Your task to perform on an android device: Go to network settings Image 0: 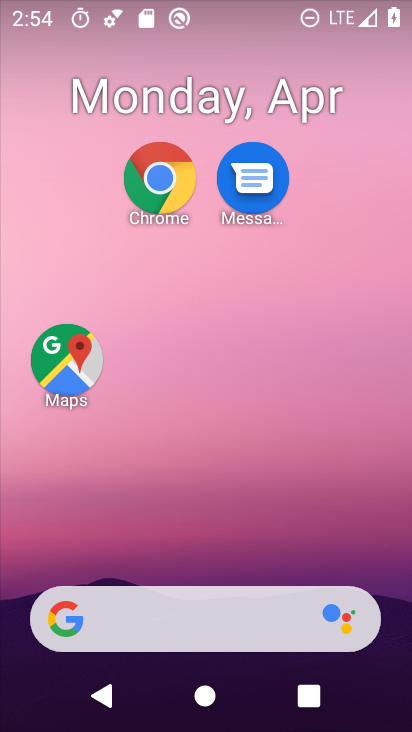
Step 0: drag from (315, 589) to (308, 44)
Your task to perform on an android device: Go to network settings Image 1: 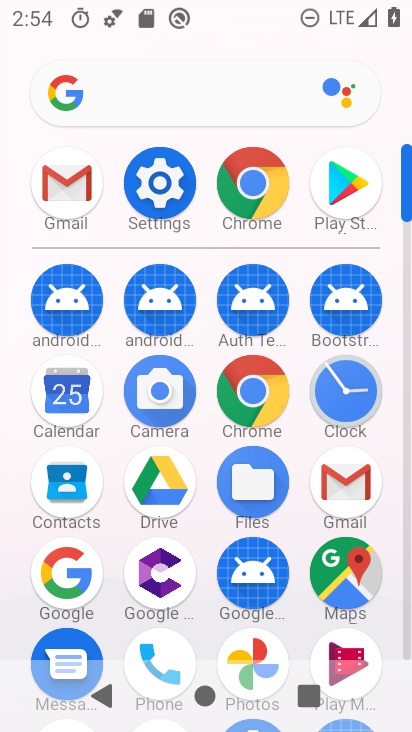
Step 1: drag from (297, 640) to (307, 172)
Your task to perform on an android device: Go to network settings Image 2: 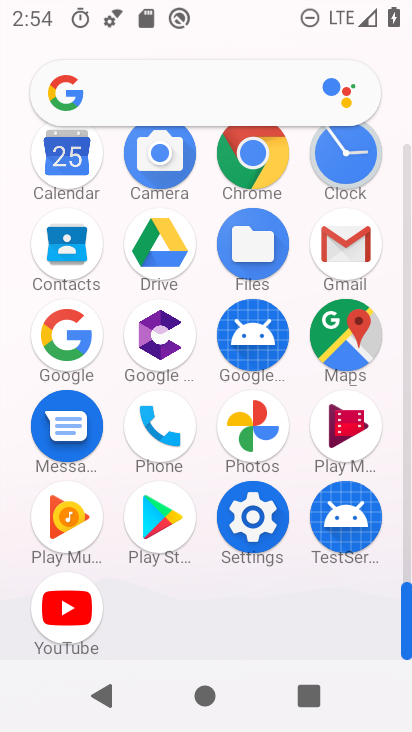
Step 2: click (261, 534)
Your task to perform on an android device: Go to network settings Image 3: 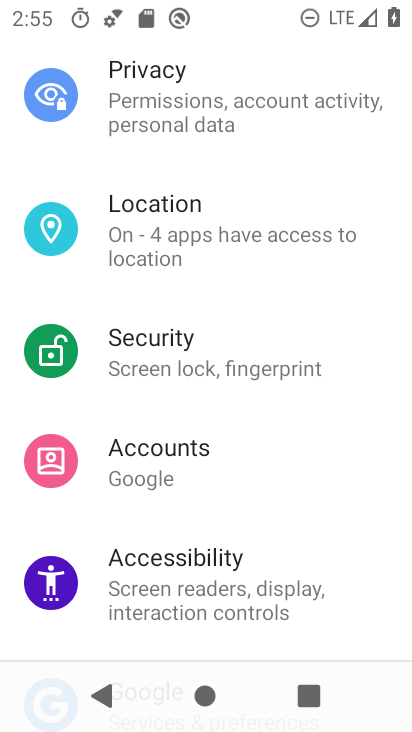
Step 3: drag from (220, 658) to (240, 141)
Your task to perform on an android device: Go to network settings Image 4: 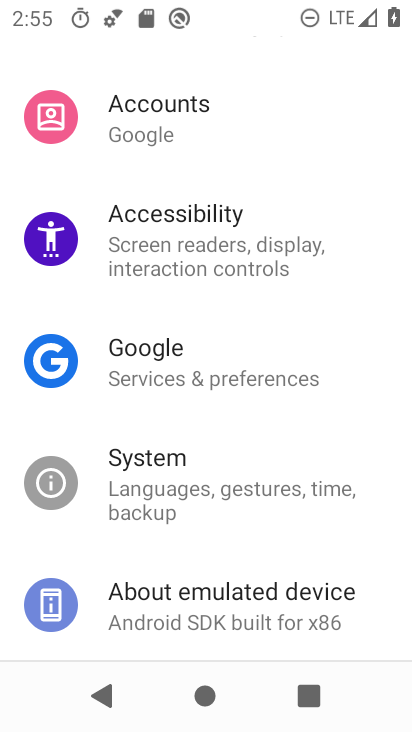
Step 4: drag from (252, 201) to (249, 674)
Your task to perform on an android device: Go to network settings Image 5: 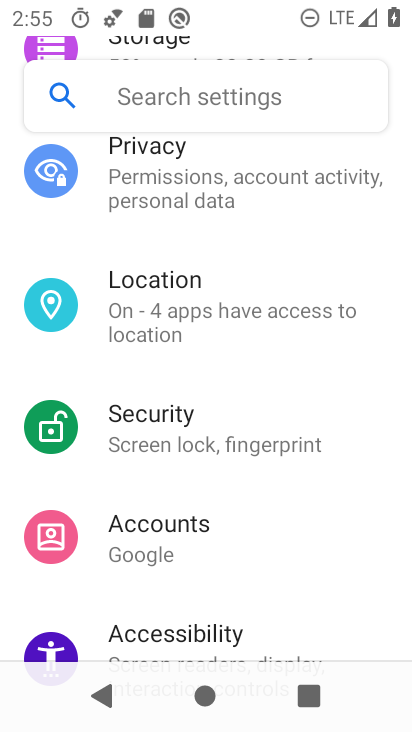
Step 5: drag from (240, 217) to (212, 660)
Your task to perform on an android device: Go to network settings Image 6: 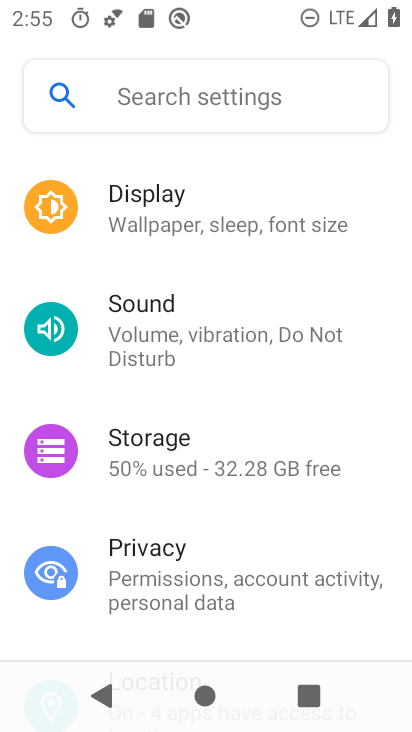
Step 6: drag from (205, 236) to (200, 682)
Your task to perform on an android device: Go to network settings Image 7: 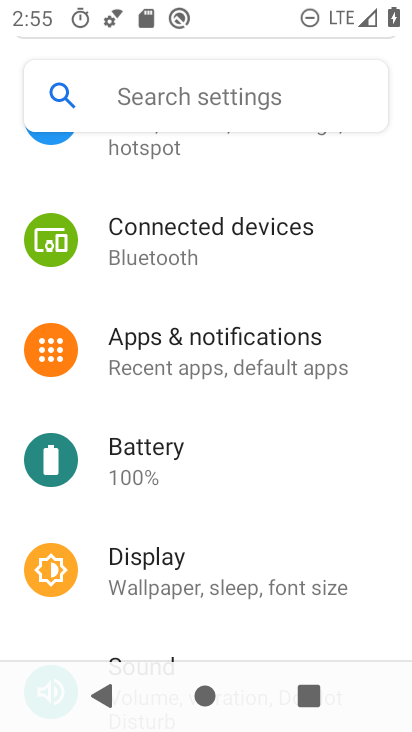
Step 7: drag from (211, 331) to (215, 704)
Your task to perform on an android device: Go to network settings Image 8: 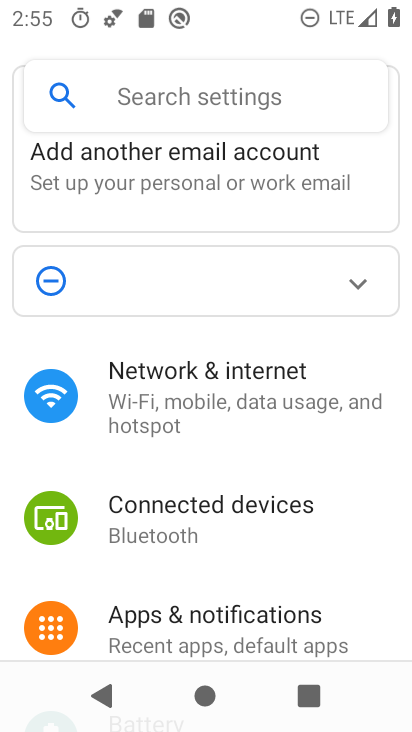
Step 8: click (212, 384)
Your task to perform on an android device: Go to network settings Image 9: 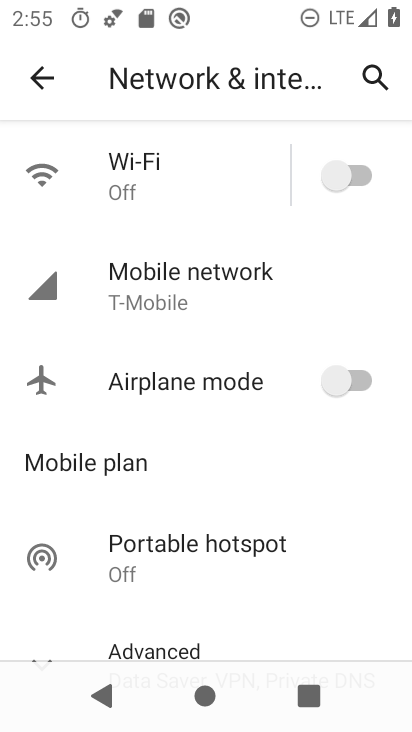
Step 9: click (274, 624)
Your task to perform on an android device: Go to network settings Image 10: 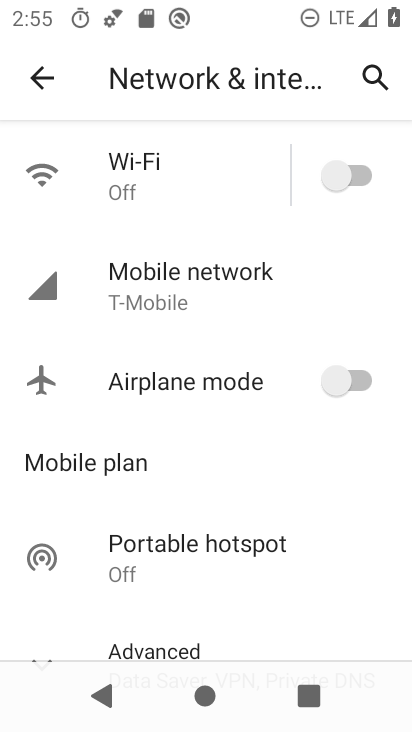
Step 10: click (233, 275)
Your task to perform on an android device: Go to network settings Image 11: 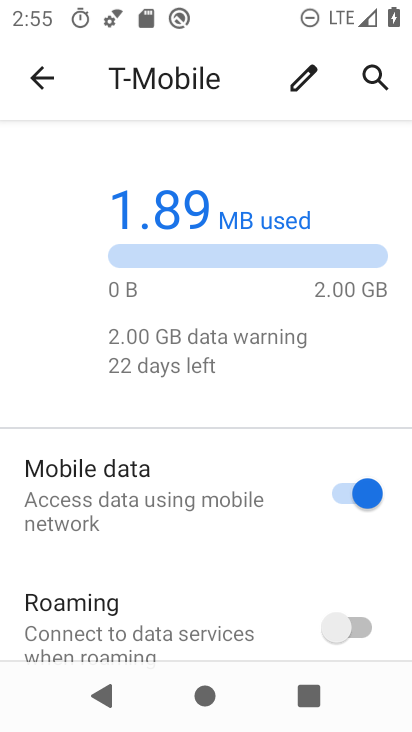
Step 11: task complete